Your task to perform on an android device: Go to Google maps Image 0: 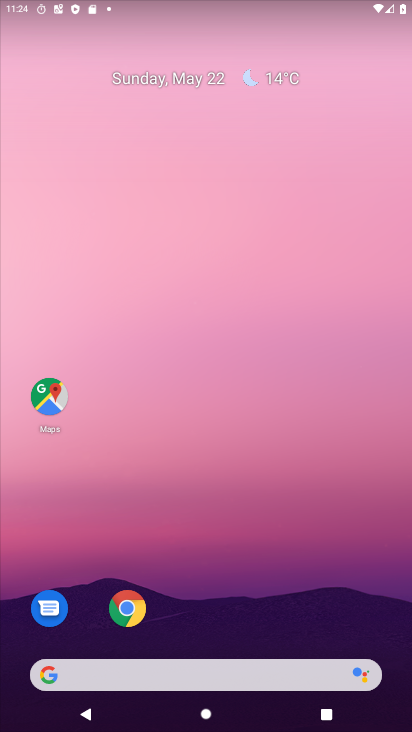
Step 0: drag from (229, 730) to (199, 69)
Your task to perform on an android device: Go to Google maps Image 1: 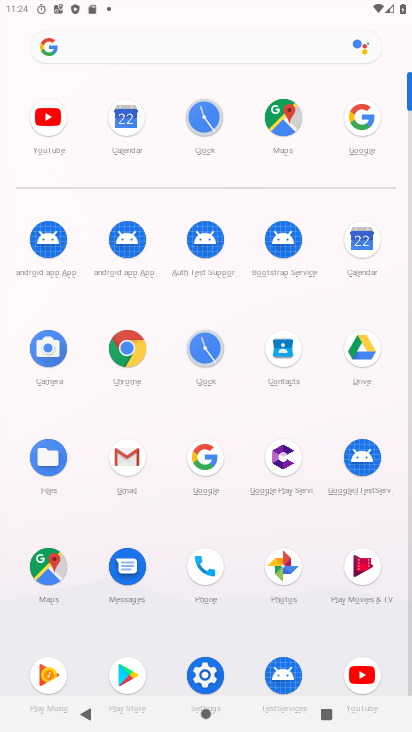
Step 1: click (46, 558)
Your task to perform on an android device: Go to Google maps Image 2: 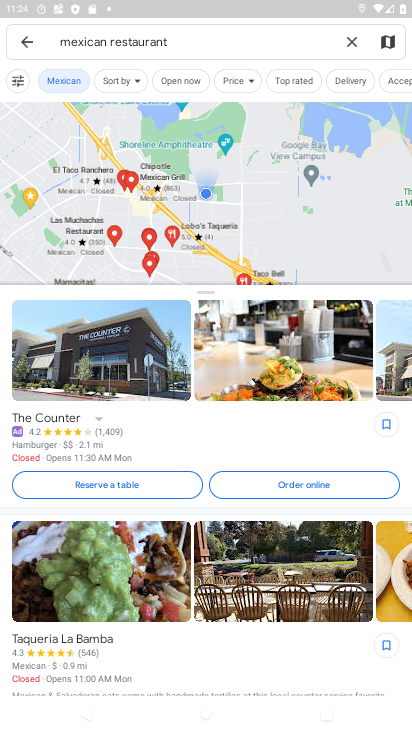
Step 2: task complete